Your task to perform on an android device: Search for the best coffee tables on Crate & Barrel Image 0: 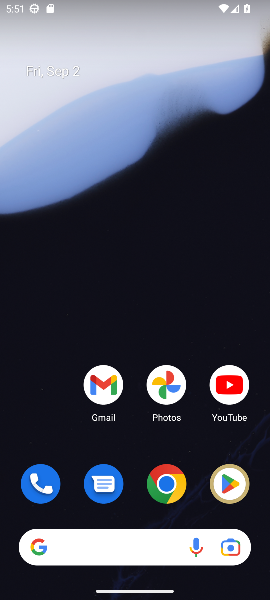
Step 0: click (159, 484)
Your task to perform on an android device: Search for the best coffee tables on Crate & Barrel Image 1: 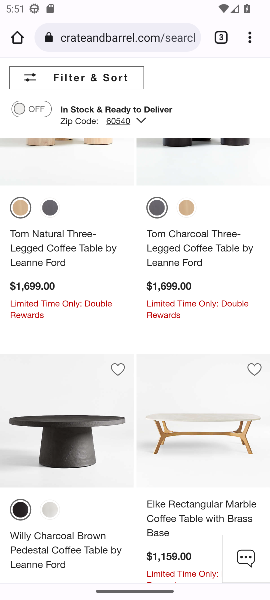
Step 1: task complete